Your task to perform on an android device: stop showing notifications on the lock screen Image 0: 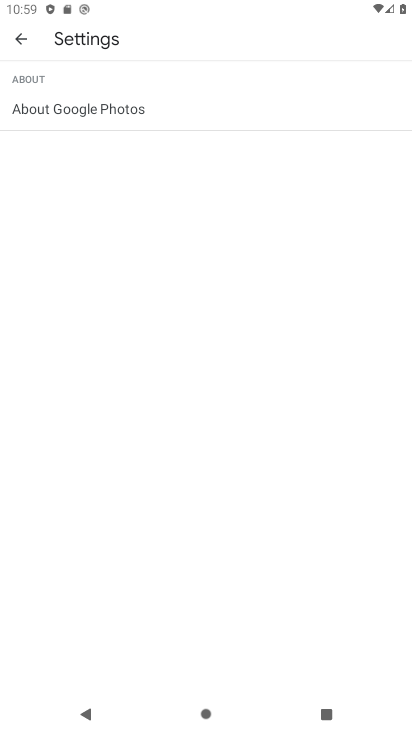
Step 0: drag from (377, 682) to (185, 219)
Your task to perform on an android device: stop showing notifications on the lock screen Image 1: 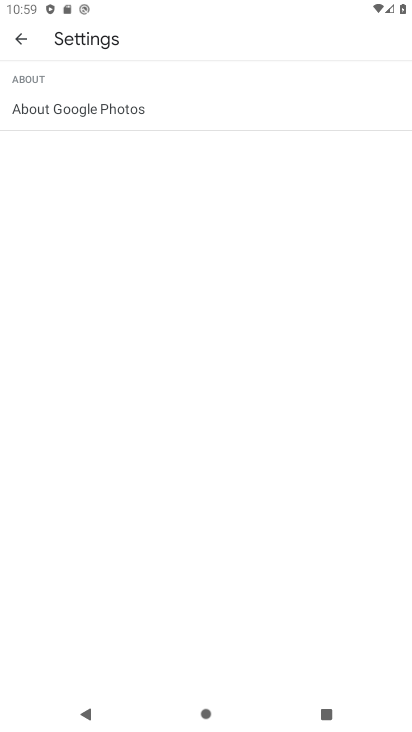
Step 1: press back button
Your task to perform on an android device: stop showing notifications on the lock screen Image 2: 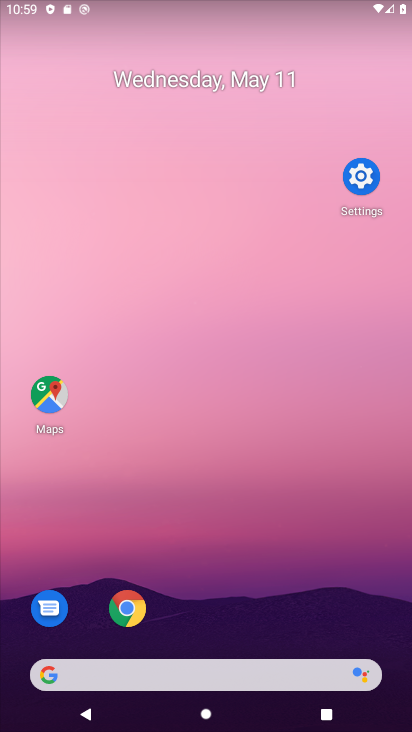
Step 2: drag from (359, 601) to (131, 168)
Your task to perform on an android device: stop showing notifications on the lock screen Image 3: 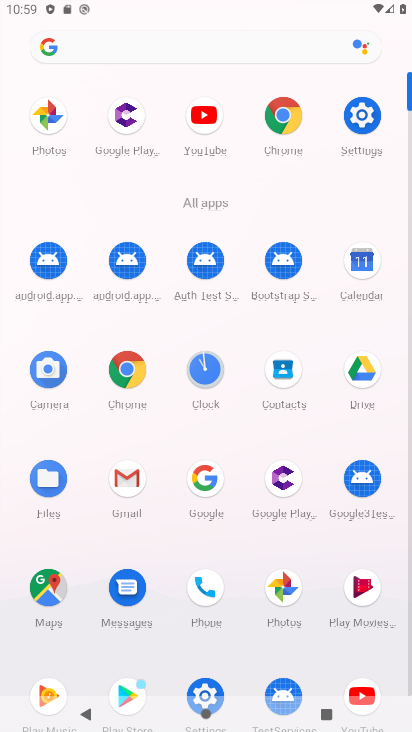
Step 3: click (365, 129)
Your task to perform on an android device: stop showing notifications on the lock screen Image 4: 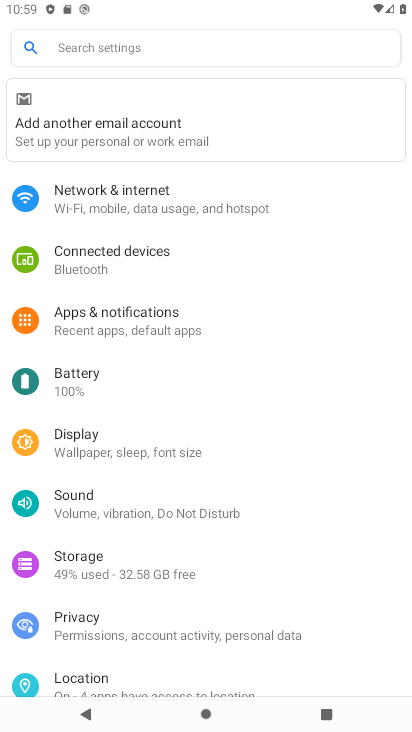
Step 4: click (111, 320)
Your task to perform on an android device: stop showing notifications on the lock screen Image 5: 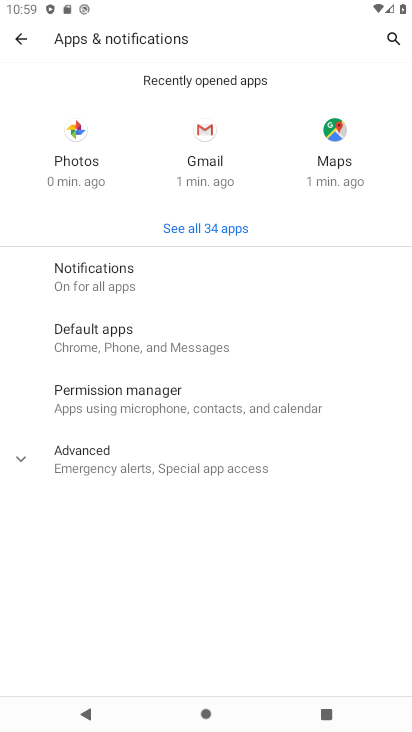
Step 5: click (87, 271)
Your task to perform on an android device: stop showing notifications on the lock screen Image 6: 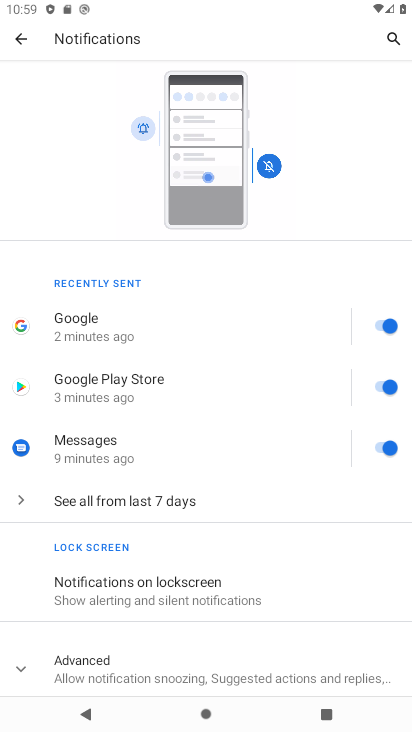
Step 6: drag from (195, 579) to (221, 78)
Your task to perform on an android device: stop showing notifications on the lock screen Image 7: 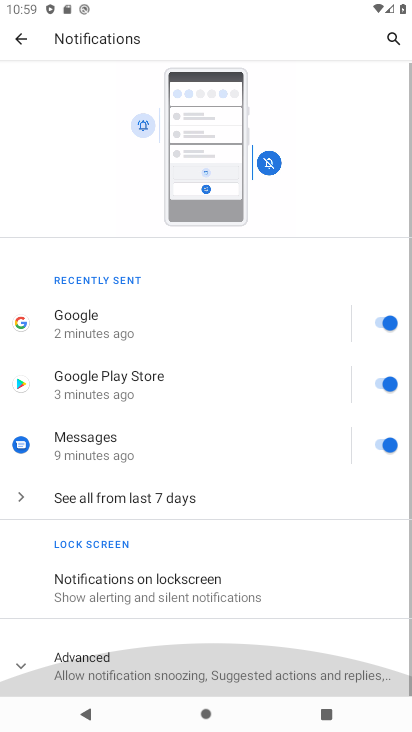
Step 7: drag from (154, 490) to (168, 121)
Your task to perform on an android device: stop showing notifications on the lock screen Image 8: 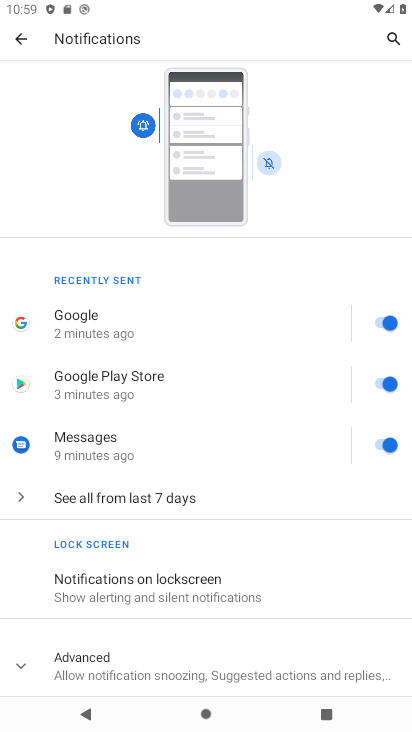
Step 8: click (138, 578)
Your task to perform on an android device: stop showing notifications on the lock screen Image 9: 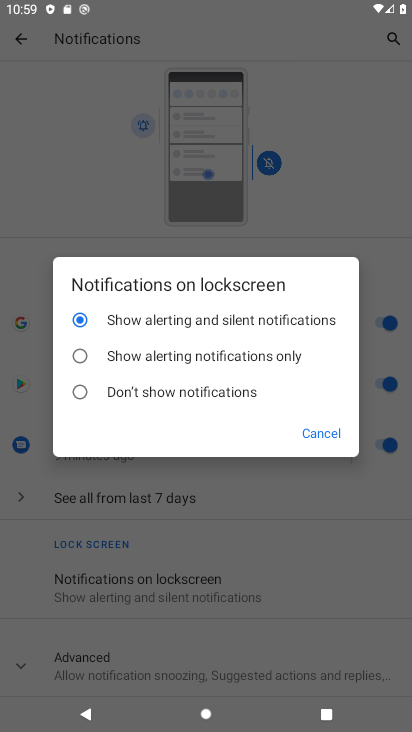
Step 9: click (69, 371)
Your task to perform on an android device: stop showing notifications on the lock screen Image 10: 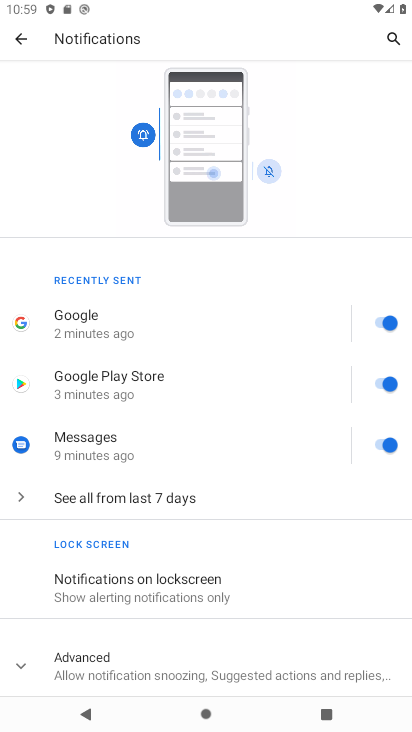
Step 10: click (136, 592)
Your task to perform on an android device: stop showing notifications on the lock screen Image 11: 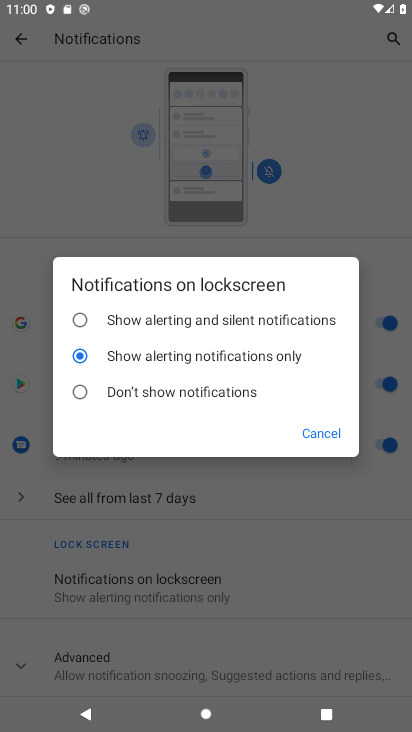
Step 11: click (309, 428)
Your task to perform on an android device: stop showing notifications on the lock screen Image 12: 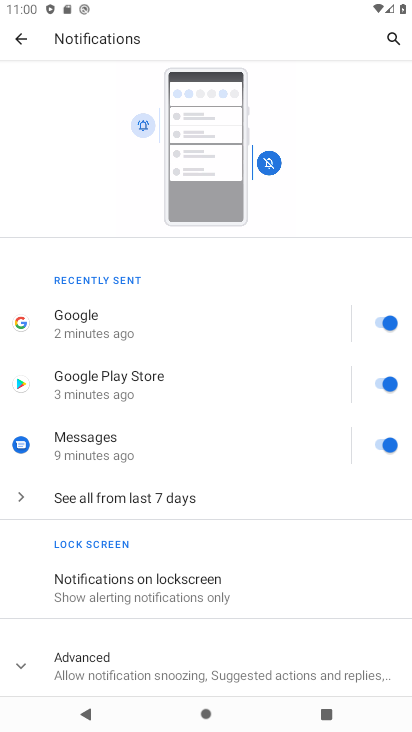
Step 12: task complete